Your task to perform on an android device: What's the time in New York? Image 0: 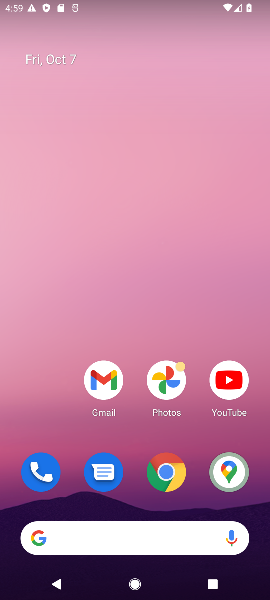
Step 0: click (160, 473)
Your task to perform on an android device: What's the time in New York? Image 1: 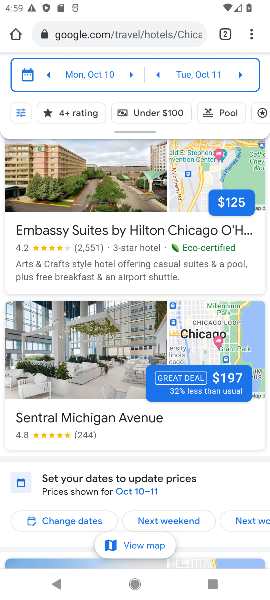
Step 1: click (95, 34)
Your task to perform on an android device: What's the time in New York? Image 2: 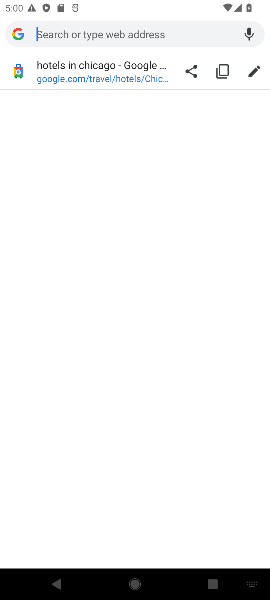
Step 2: type "time in New York"
Your task to perform on an android device: What's the time in New York? Image 3: 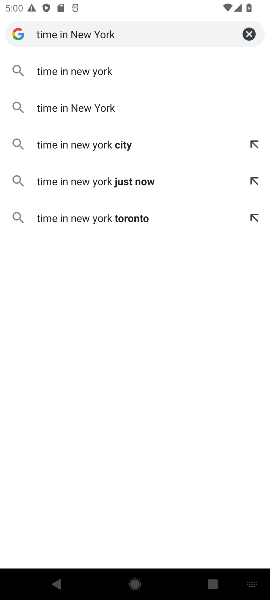
Step 3: click (100, 65)
Your task to perform on an android device: What's the time in New York? Image 4: 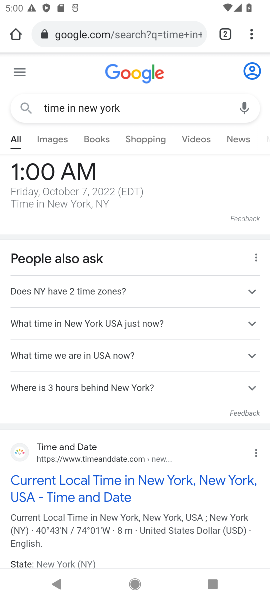
Step 4: task complete